Your task to perform on an android device: open chrome and create a bookmark for the current page Image 0: 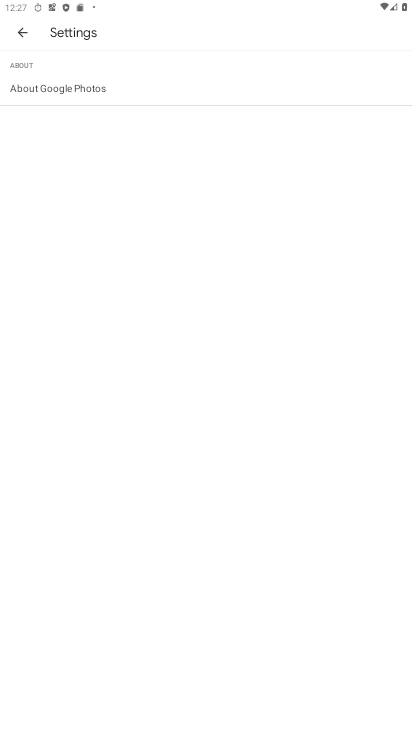
Step 0: press home button
Your task to perform on an android device: open chrome and create a bookmark for the current page Image 1: 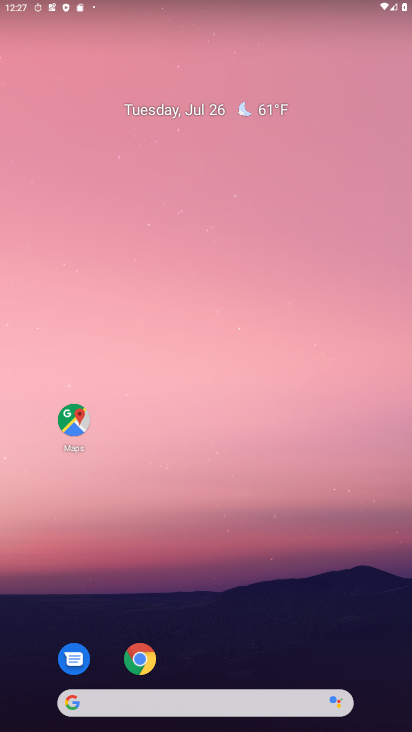
Step 1: click (144, 658)
Your task to perform on an android device: open chrome and create a bookmark for the current page Image 2: 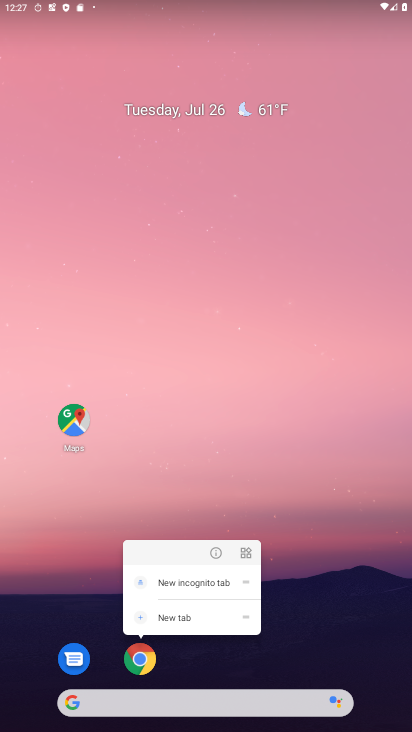
Step 2: click (144, 658)
Your task to perform on an android device: open chrome and create a bookmark for the current page Image 3: 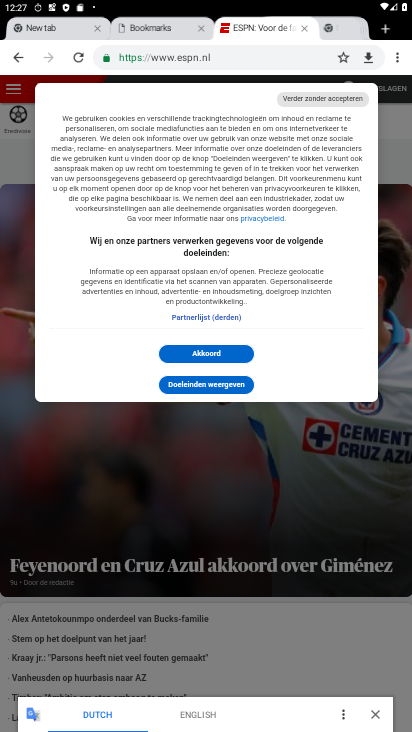
Step 3: click (342, 59)
Your task to perform on an android device: open chrome and create a bookmark for the current page Image 4: 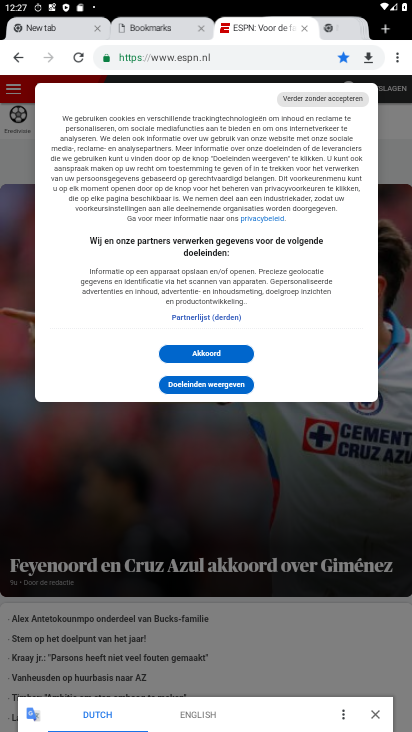
Step 4: task complete